Your task to perform on an android device: toggle javascript in the chrome app Image 0: 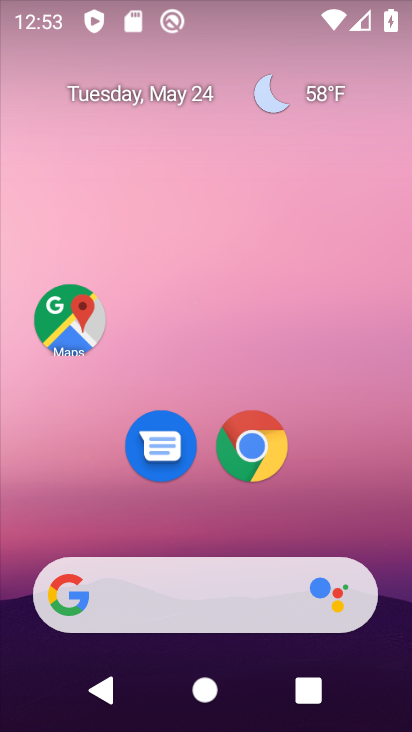
Step 0: drag from (276, 619) to (286, 119)
Your task to perform on an android device: toggle javascript in the chrome app Image 1: 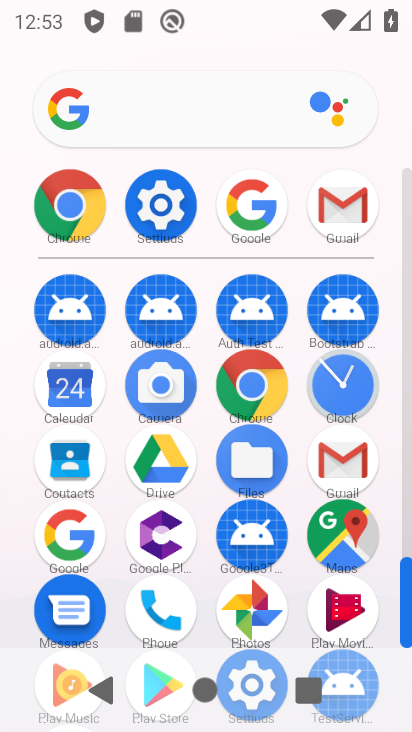
Step 1: click (77, 215)
Your task to perform on an android device: toggle javascript in the chrome app Image 2: 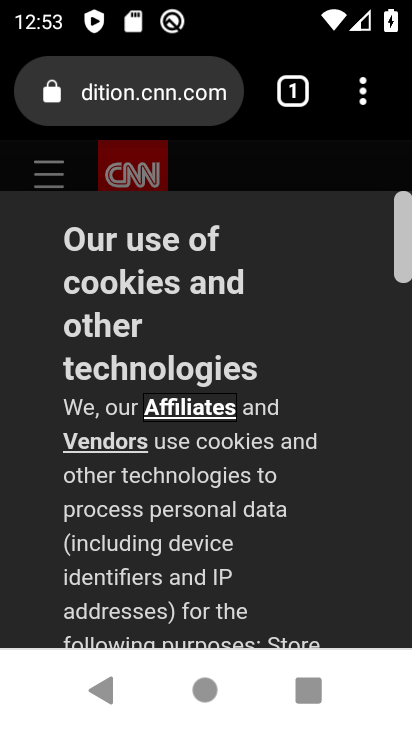
Step 2: click (364, 111)
Your task to perform on an android device: toggle javascript in the chrome app Image 3: 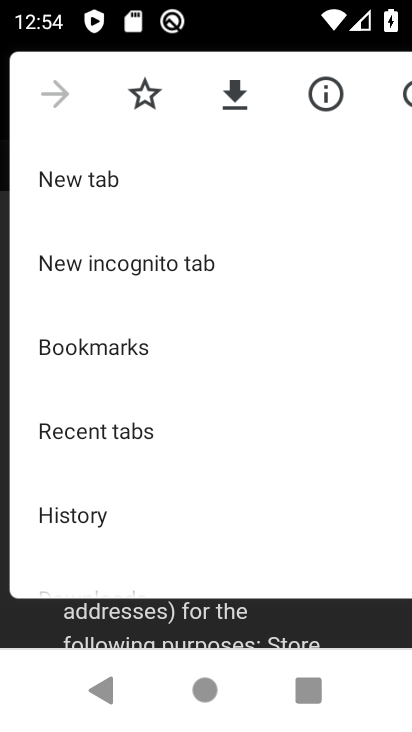
Step 3: drag from (287, 396) to (309, 70)
Your task to perform on an android device: toggle javascript in the chrome app Image 4: 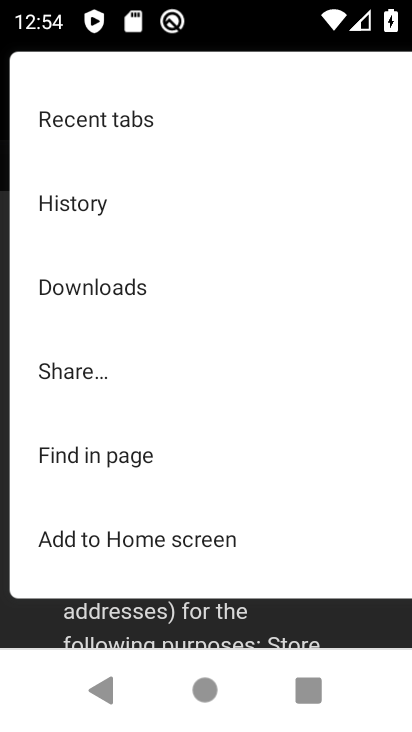
Step 4: drag from (137, 500) to (173, 188)
Your task to perform on an android device: toggle javascript in the chrome app Image 5: 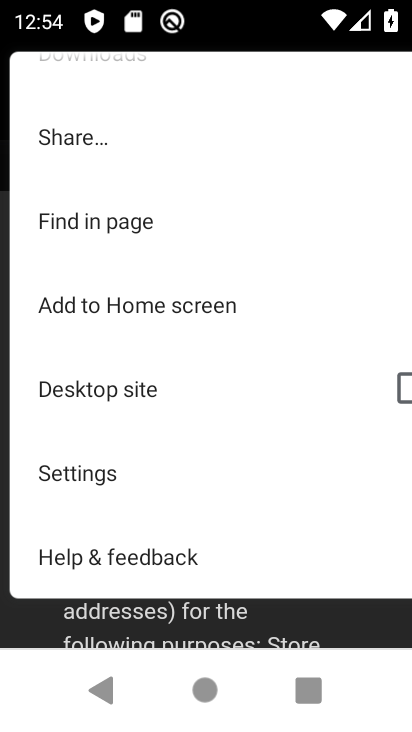
Step 5: click (80, 483)
Your task to perform on an android device: toggle javascript in the chrome app Image 6: 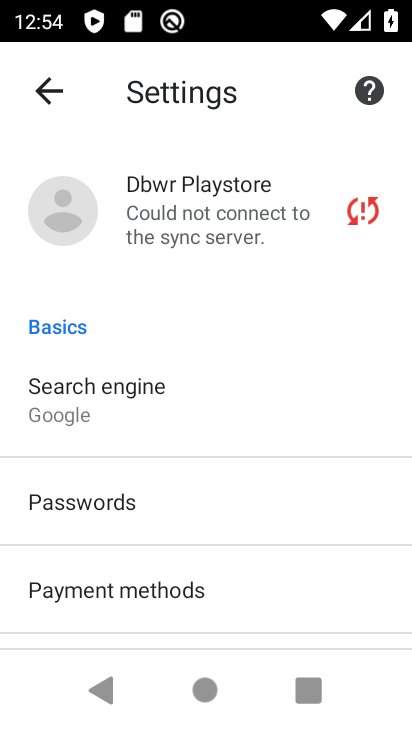
Step 6: drag from (226, 580) to (251, 316)
Your task to perform on an android device: toggle javascript in the chrome app Image 7: 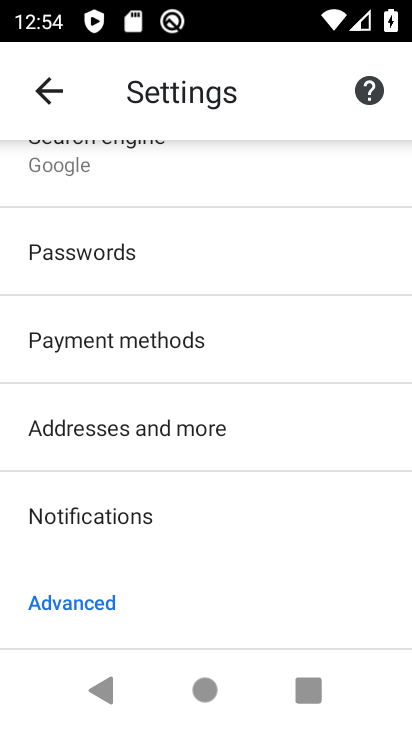
Step 7: drag from (158, 603) to (214, 304)
Your task to perform on an android device: toggle javascript in the chrome app Image 8: 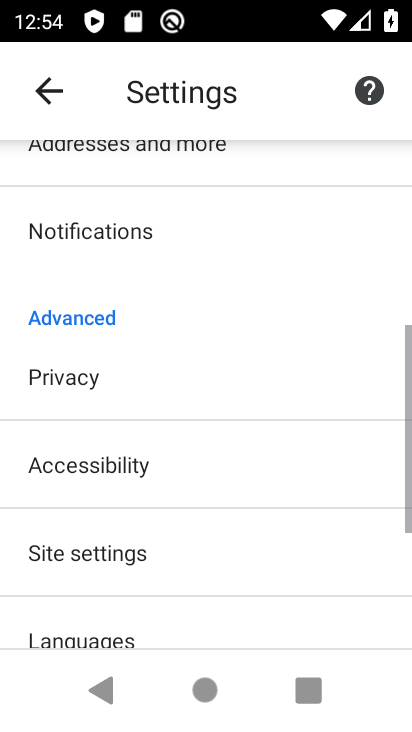
Step 8: click (214, 304)
Your task to perform on an android device: toggle javascript in the chrome app Image 9: 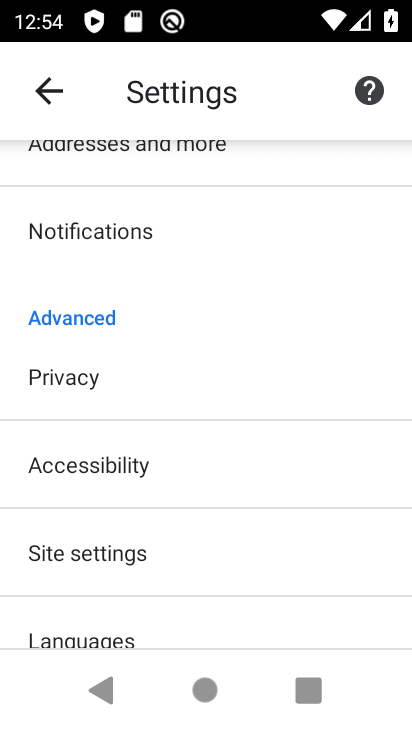
Step 9: click (178, 548)
Your task to perform on an android device: toggle javascript in the chrome app Image 10: 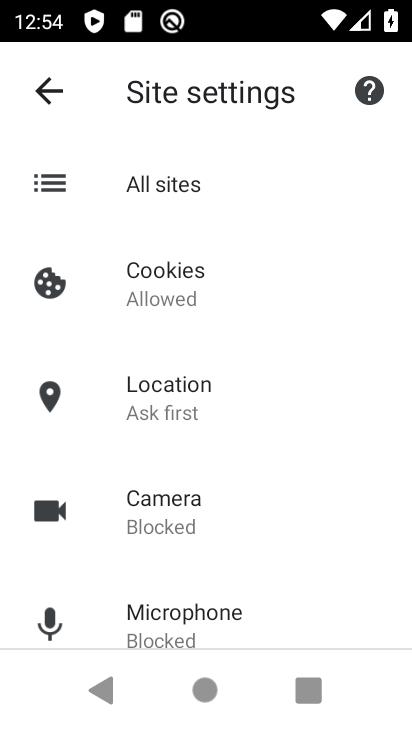
Step 10: drag from (266, 541) to (276, 391)
Your task to perform on an android device: toggle javascript in the chrome app Image 11: 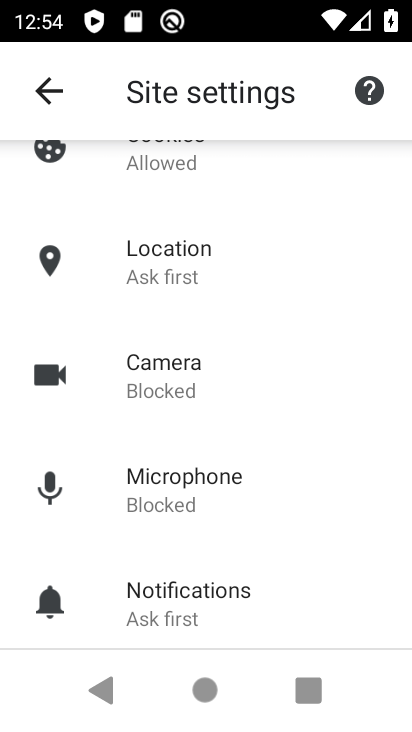
Step 11: drag from (183, 601) to (204, 371)
Your task to perform on an android device: toggle javascript in the chrome app Image 12: 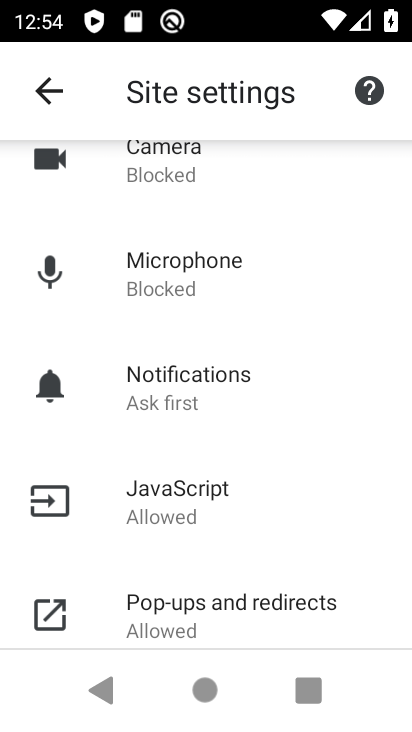
Step 12: click (207, 496)
Your task to perform on an android device: toggle javascript in the chrome app Image 13: 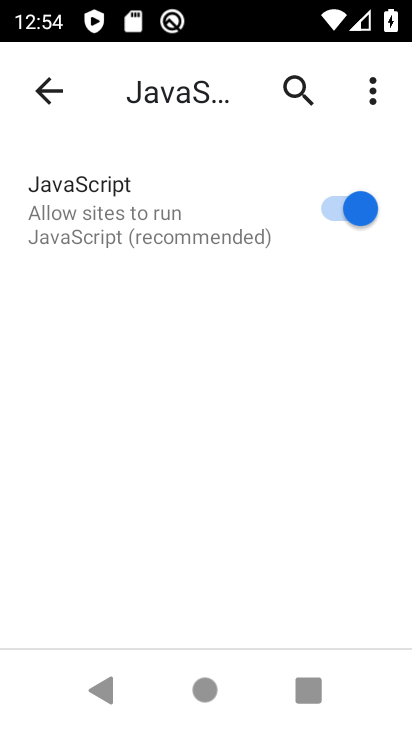
Step 13: click (333, 215)
Your task to perform on an android device: toggle javascript in the chrome app Image 14: 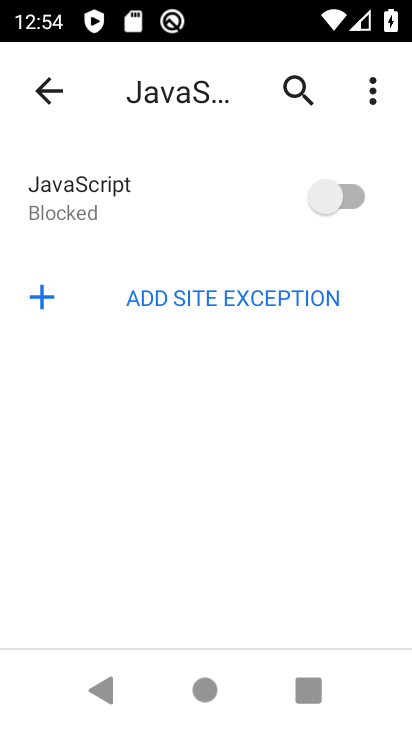
Step 14: task complete